Your task to perform on an android device: Open Youtube and go to "Your channel" Image 0: 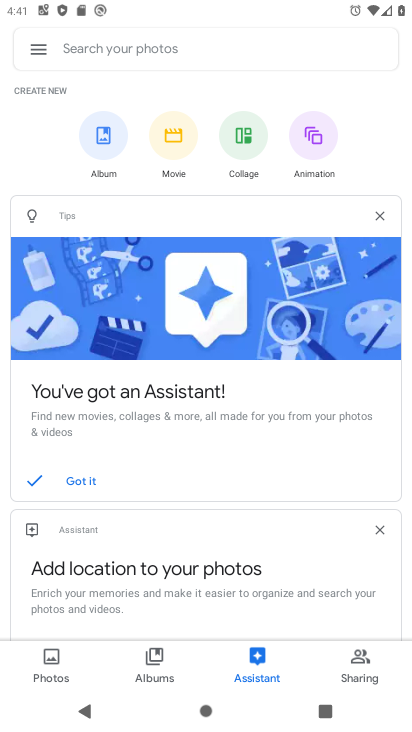
Step 0: press home button
Your task to perform on an android device: Open Youtube and go to "Your channel" Image 1: 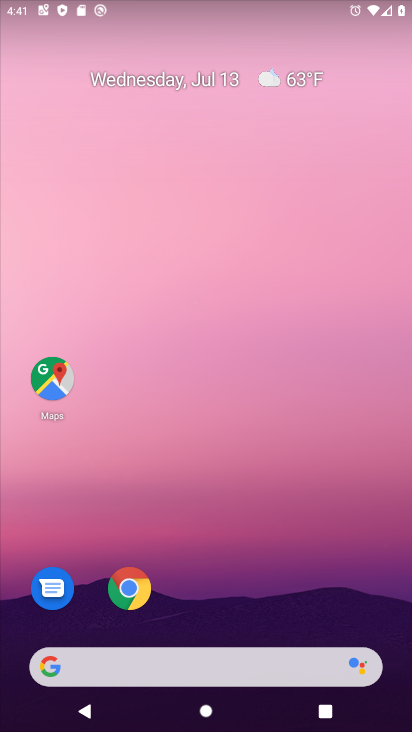
Step 1: drag from (188, 670) to (260, 213)
Your task to perform on an android device: Open Youtube and go to "Your channel" Image 2: 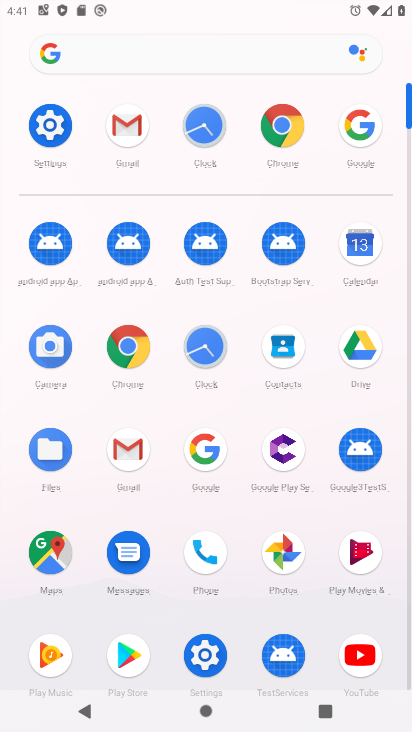
Step 2: click (363, 655)
Your task to perform on an android device: Open Youtube and go to "Your channel" Image 3: 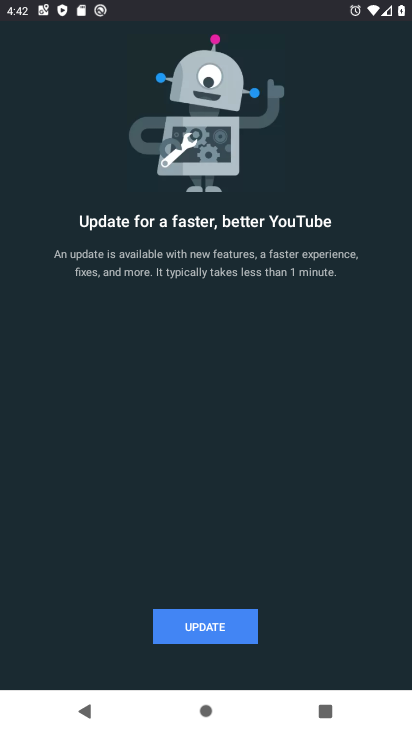
Step 3: click (211, 626)
Your task to perform on an android device: Open Youtube and go to "Your channel" Image 4: 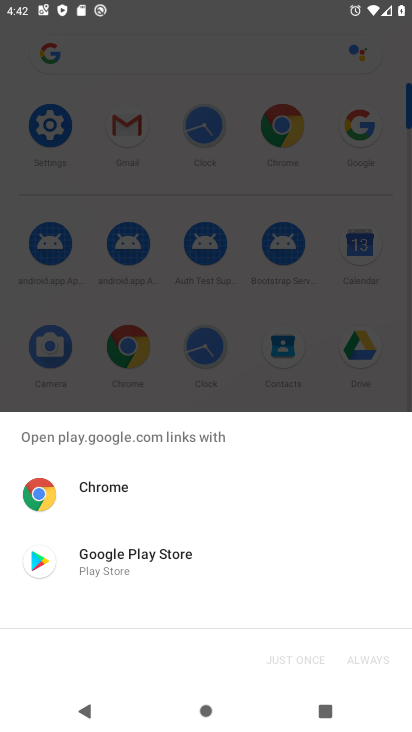
Step 4: click (155, 544)
Your task to perform on an android device: Open Youtube and go to "Your channel" Image 5: 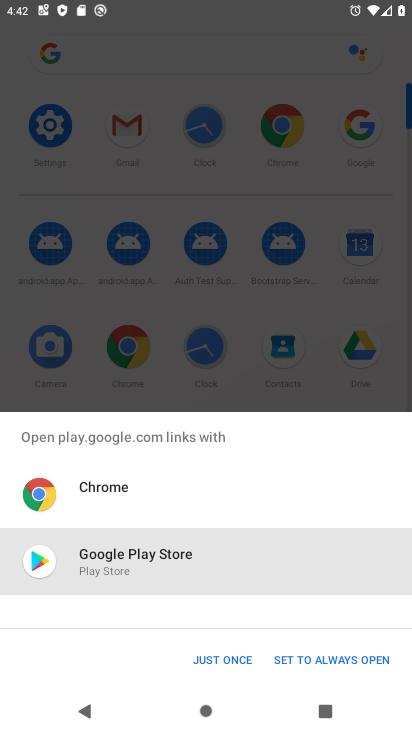
Step 5: click (210, 656)
Your task to perform on an android device: Open Youtube and go to "Your channel" Image 6: 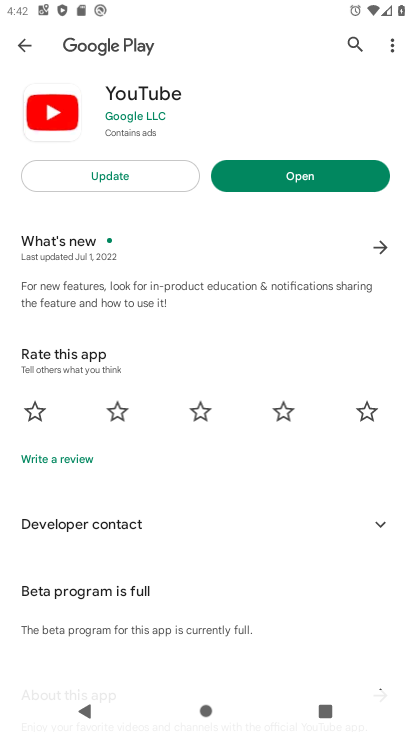
Step 6: click (117, 176)
Your task to perform on an android device: Open Youtube and go to "Your channel" Image 7: 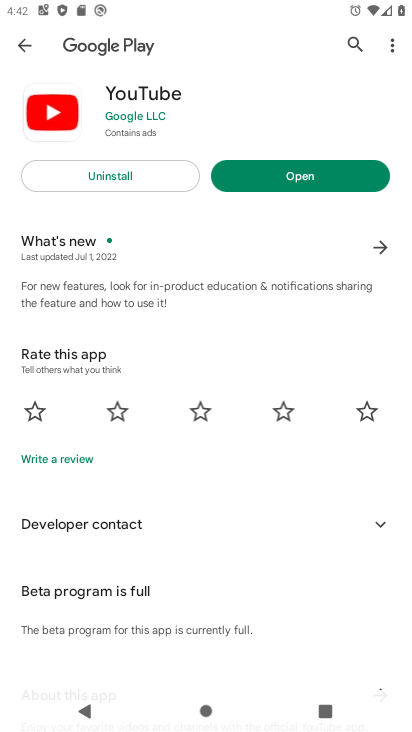
Step 7: click (294, 179)
Your task to perform on an android device: Open Youtube and go to "Your channel" Image 8: 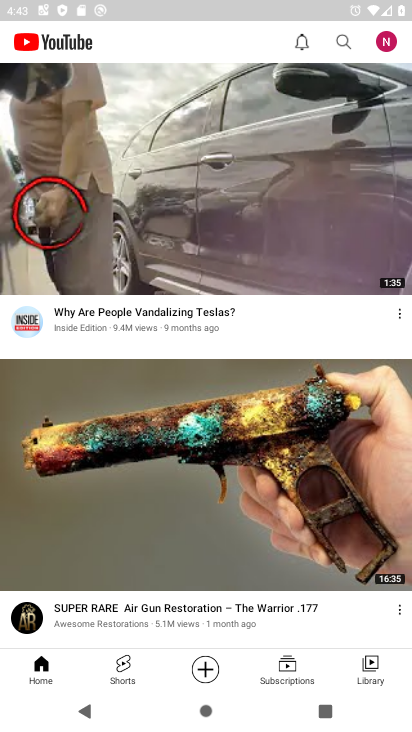
Step 8: click (386, 46)
Your task to perform on an android device: Open Youtube and go to "Your channel" Image 9: 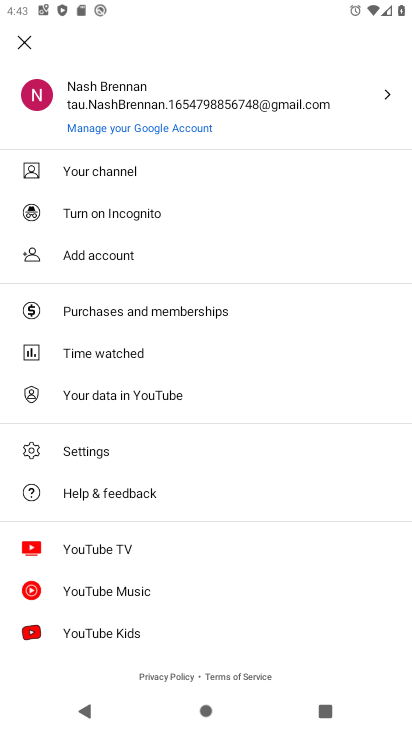
Step 9: click (129, 173)
Your task to perform on an android device: Open Youtube and go to "Your channel" Image 10: 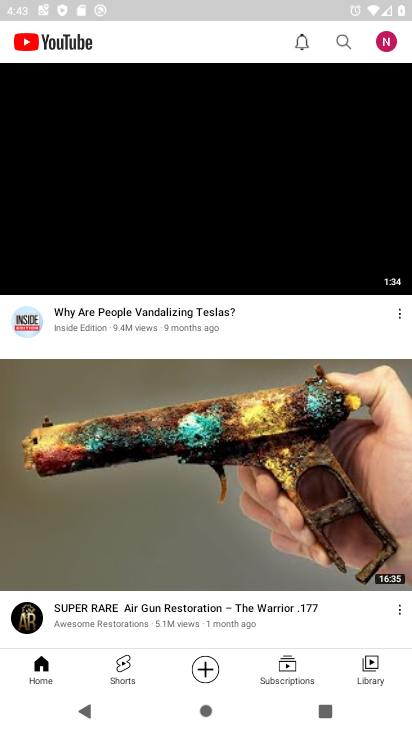
Step 10: task complete